Your task to perform on an android device: check battery use Image 0: 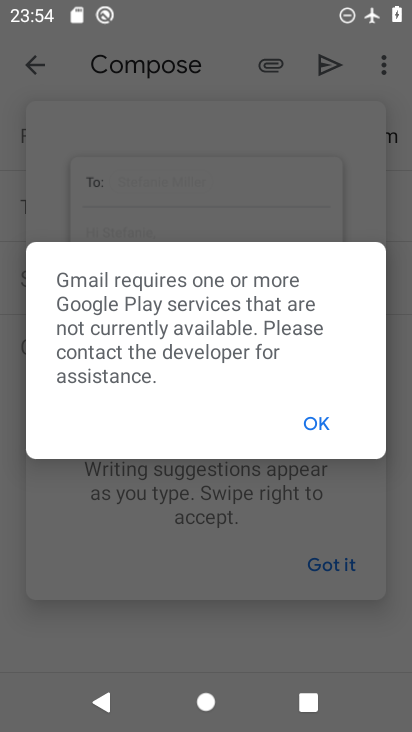
Step 0: press home button
Your task to perform on an android device: check battery use Image 1: 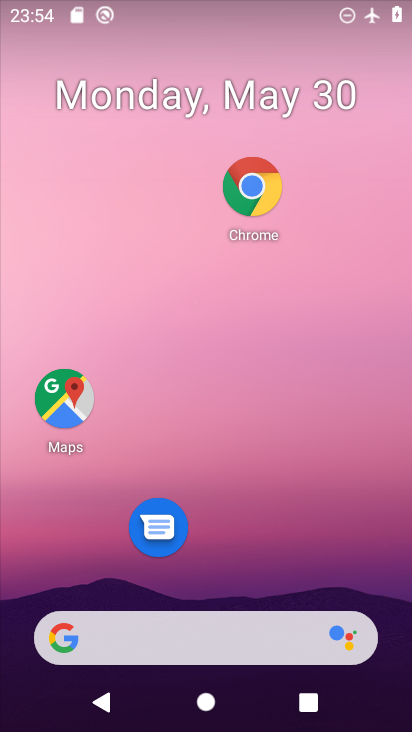
Step 1: drag from (218, 487) to (232, 218)
Your task to perform on an android device: check battery use Image 2: 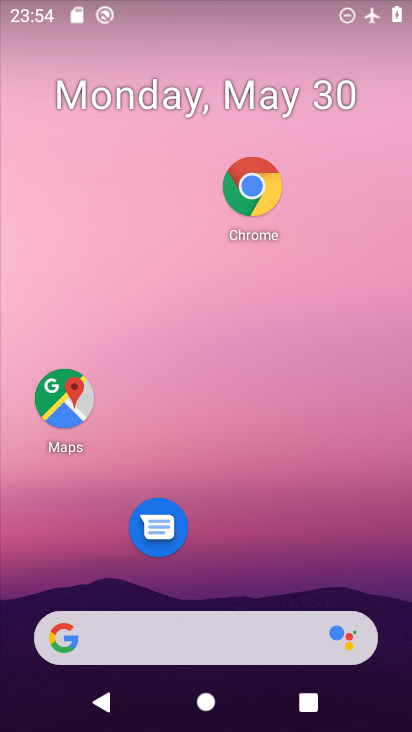
Step 2: drag from (279, 589) to (260, 165)
Your task to perform on an android device: check battery use Image 3: 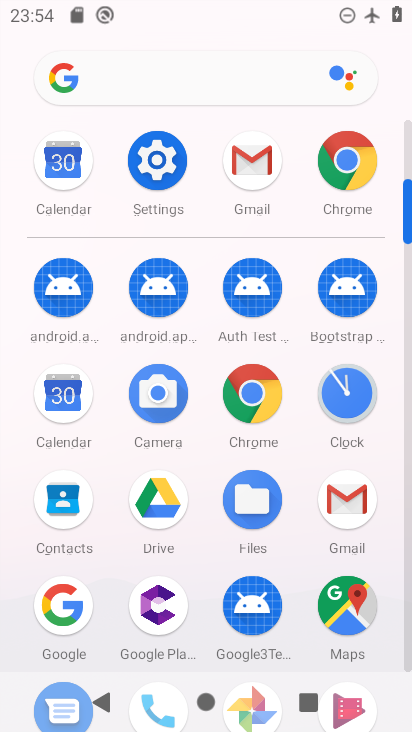
Step 3: click (167, 161)
Your task to perform on an android device: check battery use Image 4: 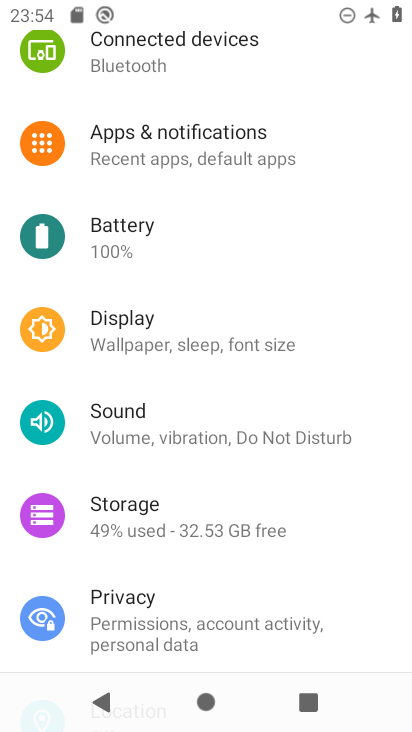
Step 4: drag from (248, 100) to (259, 545)
Your task to perform on an android device: check battery use Image 5: 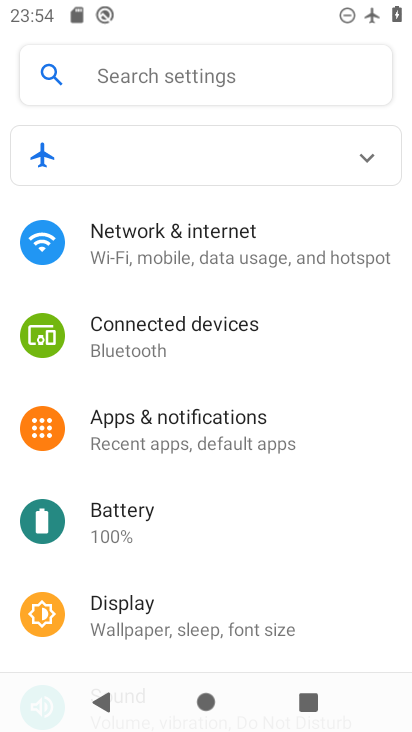
Step 5: click (138, 510)
Your task to perform on an android device: check battery use Image 6: 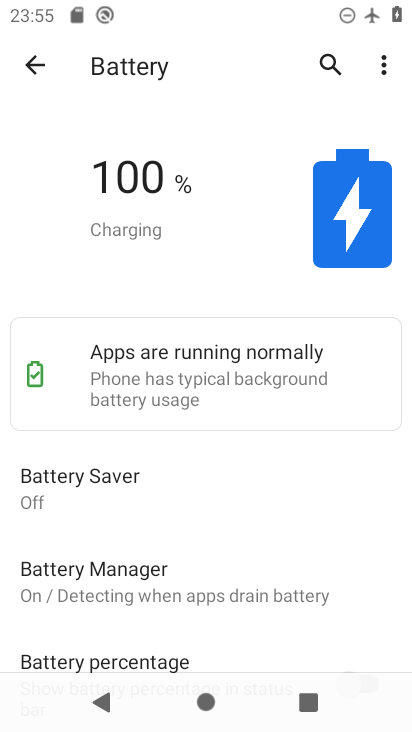
Step 6: task complete